Your task to perform on an android device: open device folders in google photos Image 0: 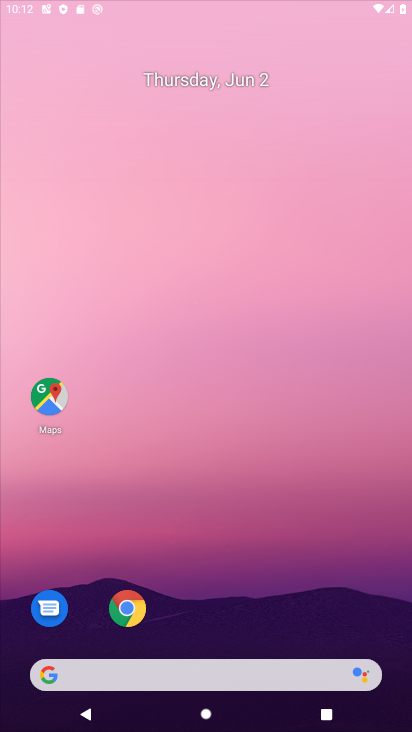
Step 0: drag from (203, 392) to (241, 166)
Your task to perform on an android device: open device folders in google photos Image 1: 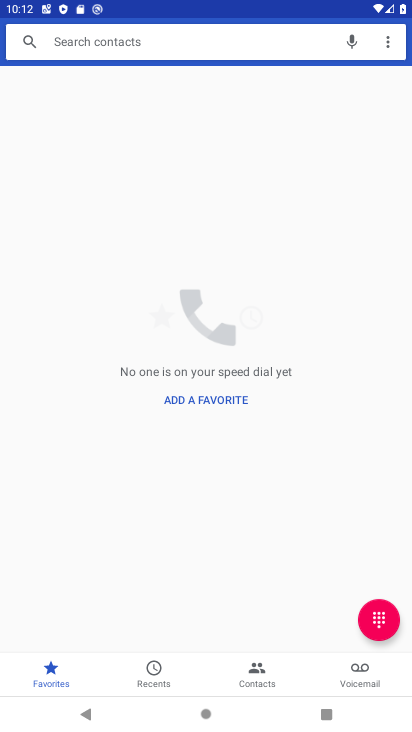
Step 1: press home button
Your task to perform on an android device: open device folders in google photos Image 2: 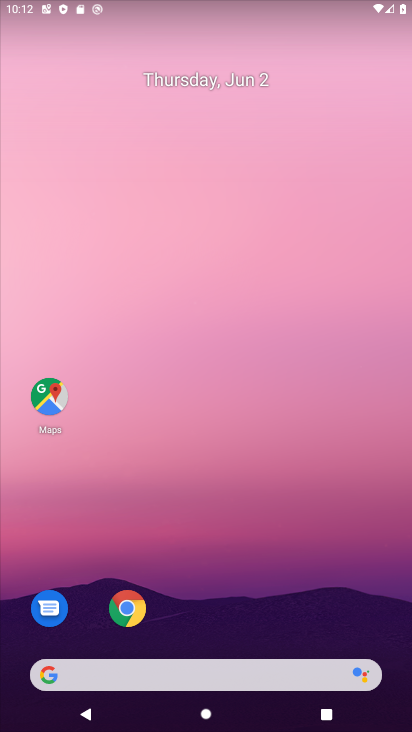
Step 2: drag from (185, 643) to (270, 149)
Your task to perform on an android device: open device folders in google photos Image 3: 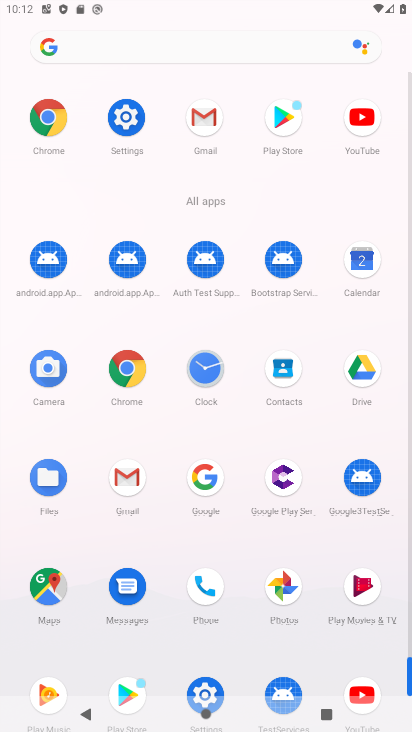
Step 3: drag from (160, 613) to (251, 285)
Your task to perform on an android device: open device folders in google photos Image 4: 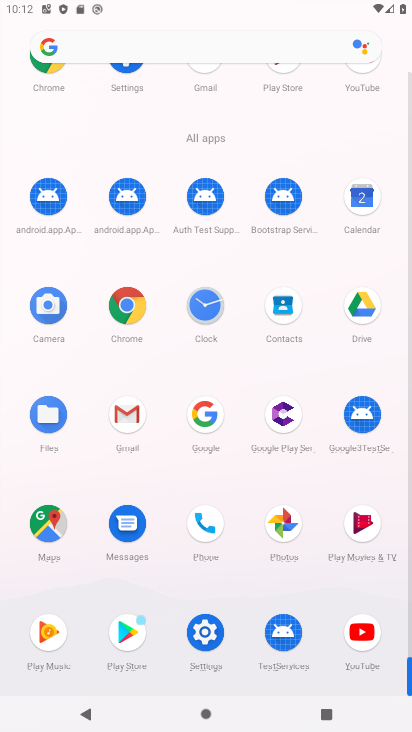
Step 4: click (278, 523)
Your task to perform on an android device: open device folders in google photos Image 5: 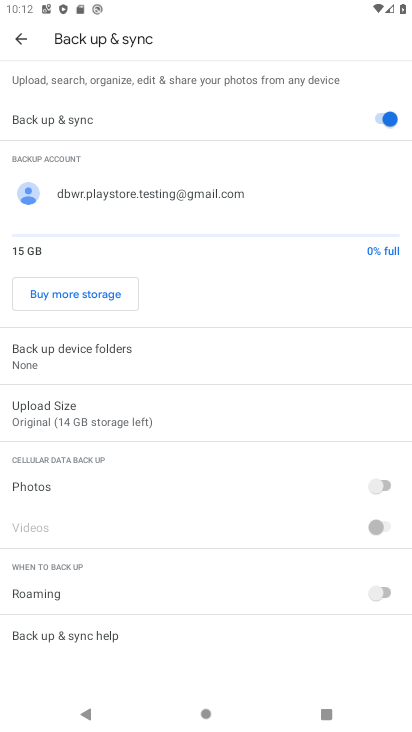
Step 5: click (36, 43)
Your task to perform on an android device: open device folders in google photos Image 6: 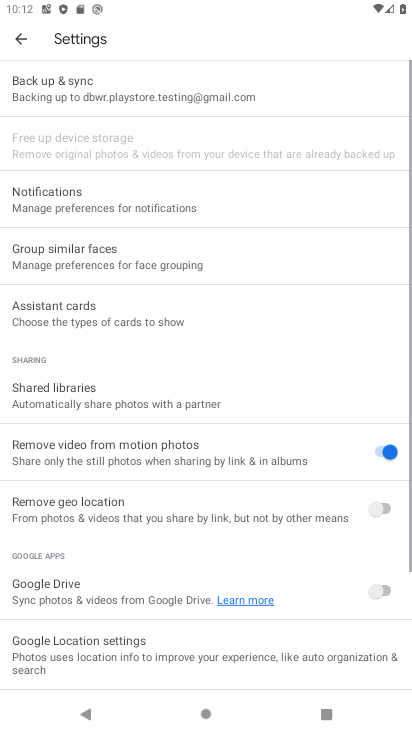
Step 6: click (23, 44)
Your task to perform on an android device: open device folders in google photos Image 7: 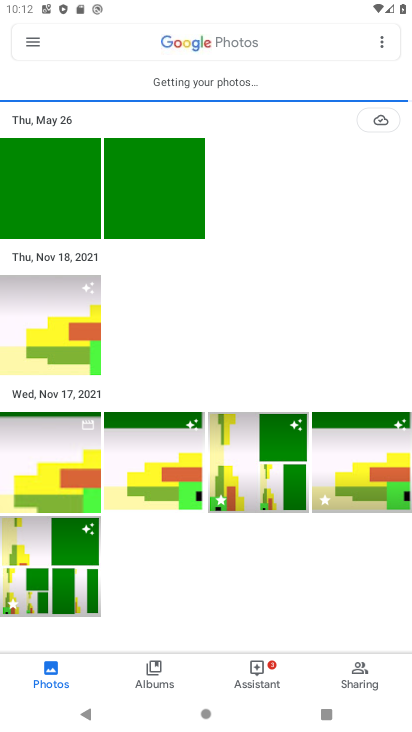
Step 7: click (27, 59)
Your task to perform on an android device: open device folders in google photos Image 8: 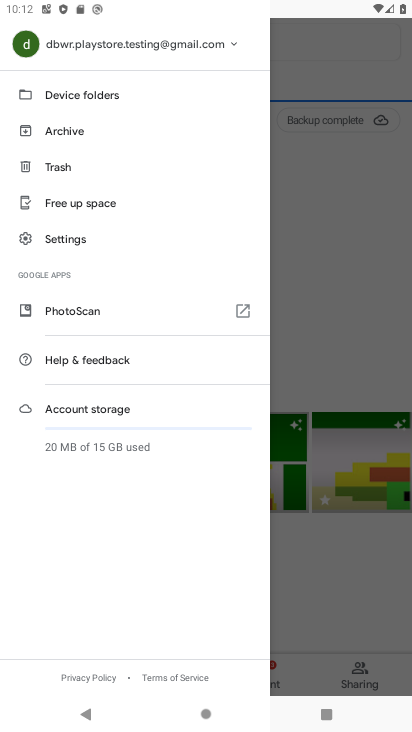
Step 8: click (104, 104)
Your task to perform on an android device: open device folders in google photos Image 9: 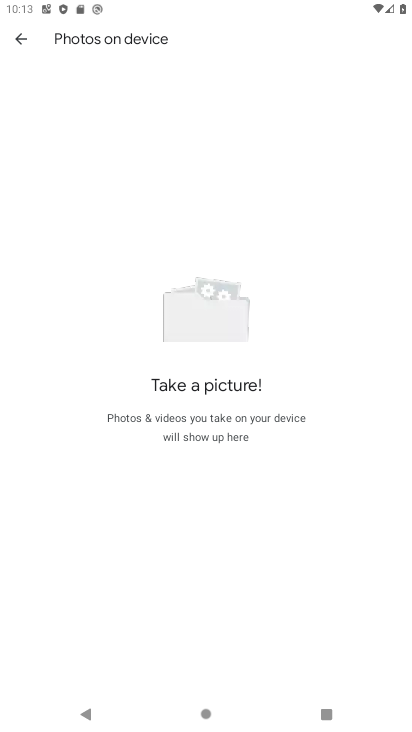
Step 9: task complete